Your task to perform on an android device: Go to display settings Image 0: 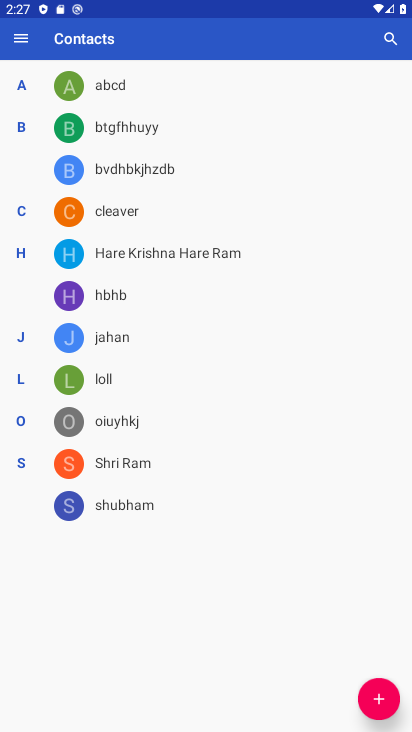
Step 0: press home button
Your task to perform on an android device: Go to display settings Image 1: 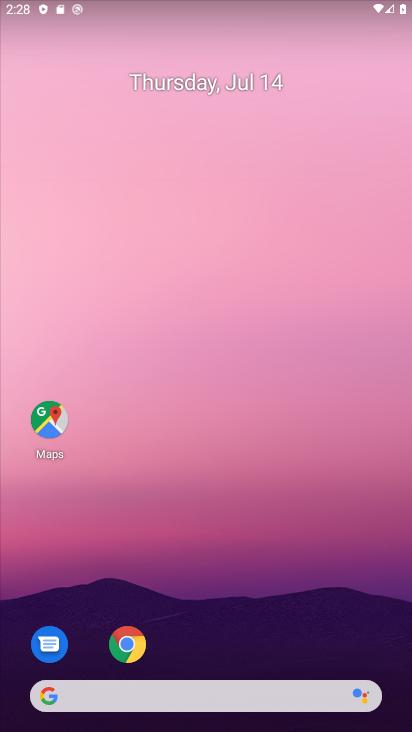
Step 1: drag from (308, 649) to (210, 121)
Your task to perform on an android device: Go to display settings Image 2: 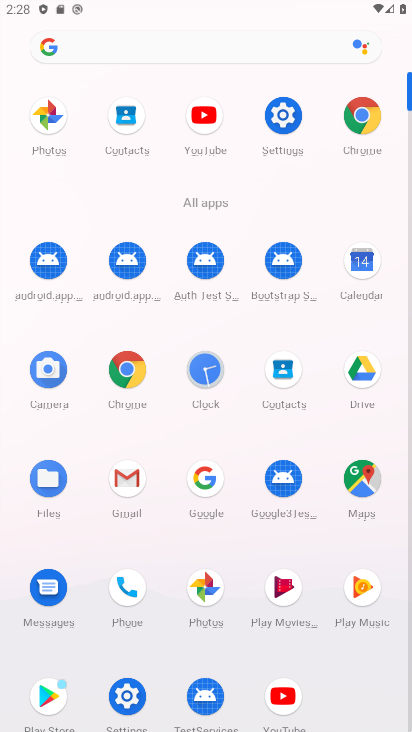
Step 2: click (290, 116)
Your task to perform on an android device: Go to display settings Image 3: 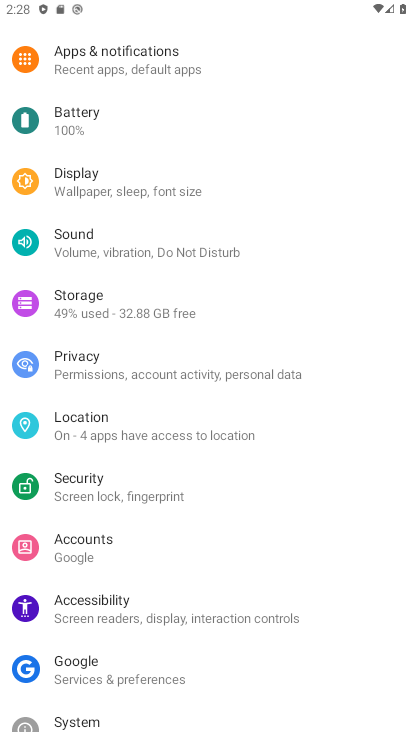
Step 3: click (223, 182)
Your task to perform on an android device: Go to display settings Image 4: 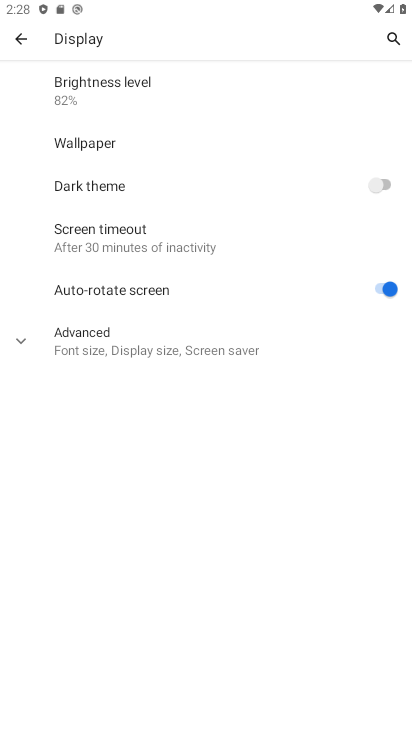
Step 4: task complete